Your task to perform on an android device: Search for "The Dispatcher" by John Scalzi on Goodreads Image 0: 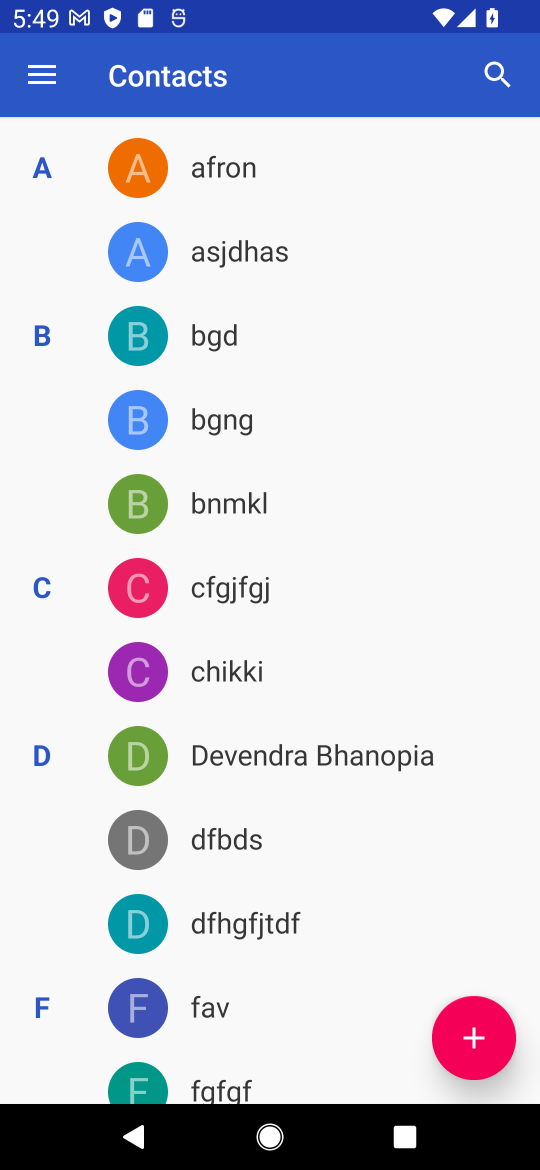
Step 0: press home button
Your task to perform on an android device: Search for "The Dispatcher" by John Scalzi on Goodreads Image 1: 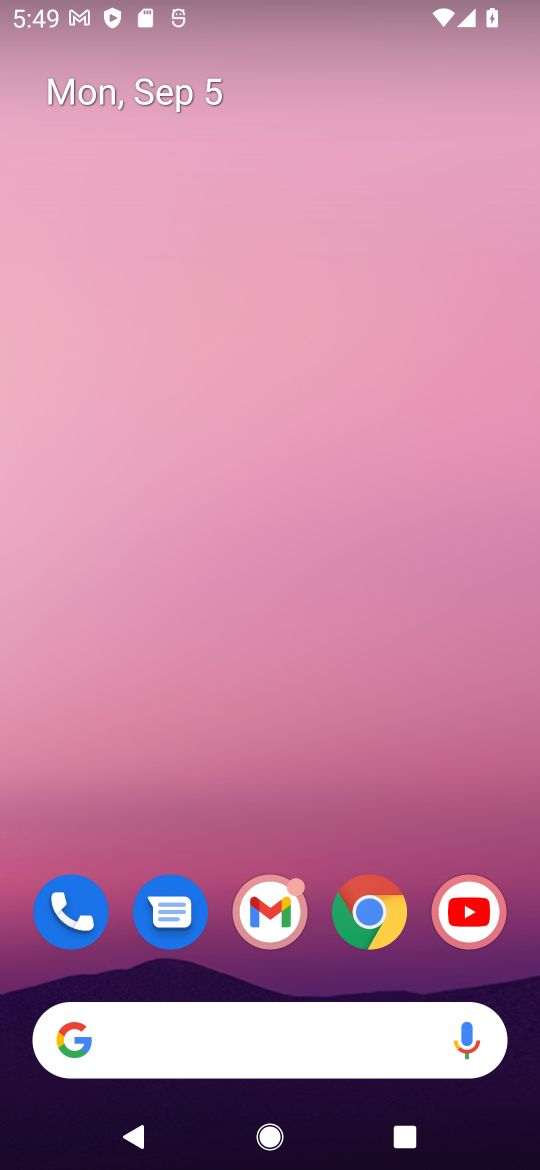
Step 1: click (364, 938)
Your task to perform on an android device: Search for "The Dispatcher" by John Scalzi on Goodreads Image 2: 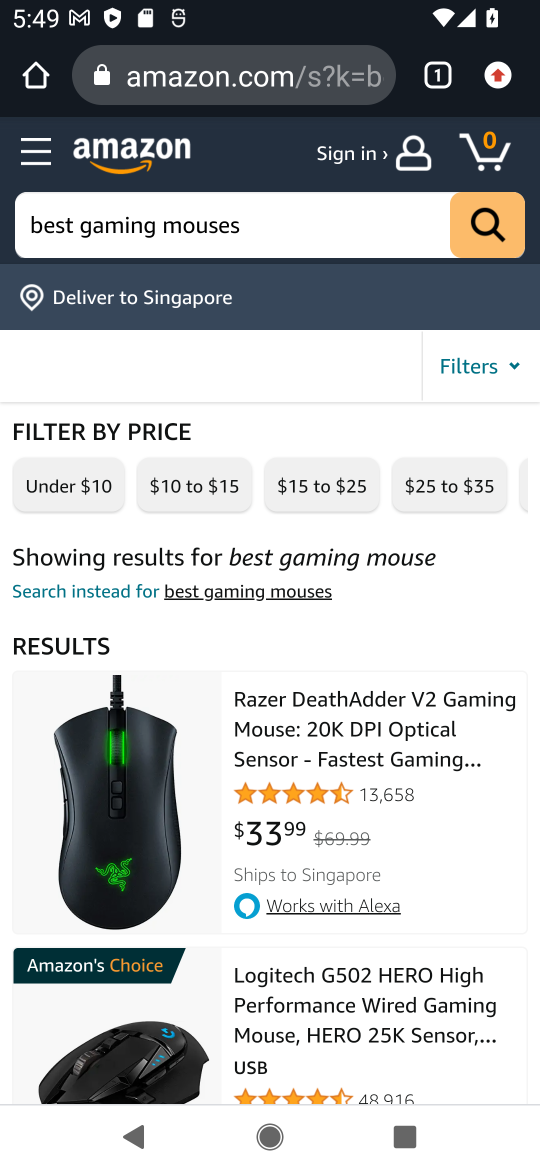
Step 2: click (260, 55)
Your task to perform on an android device: Search for "The Dispatcher" by John Scalzi on Goodreads Image 3: 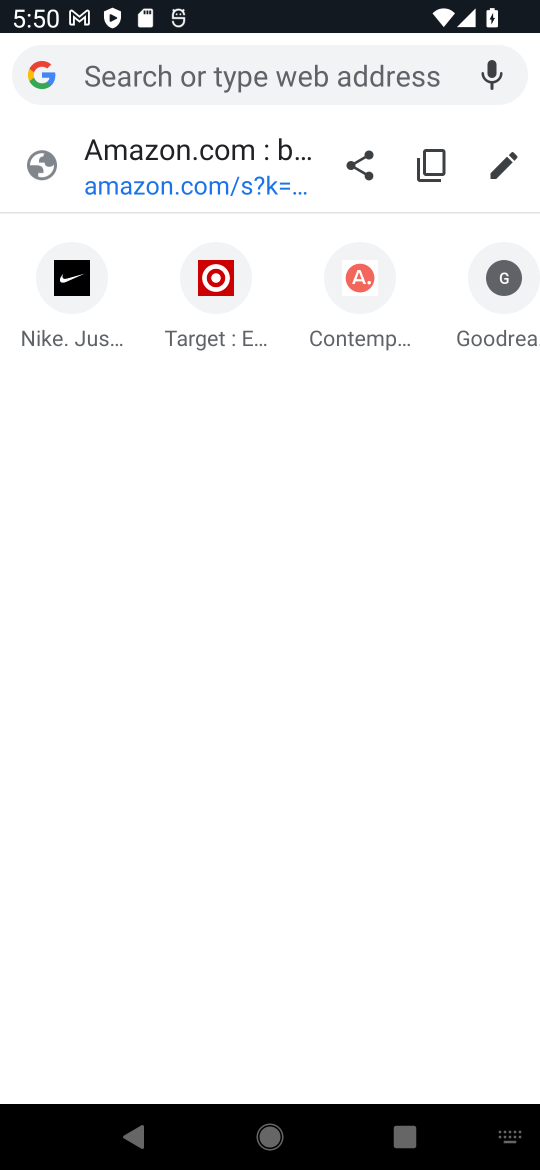
Step 3: type "the dispatcher by john scalzi"
Your task to perform on an android device: Search for "The Dispatcher" by John Scalzi on Goodreads Image 4: 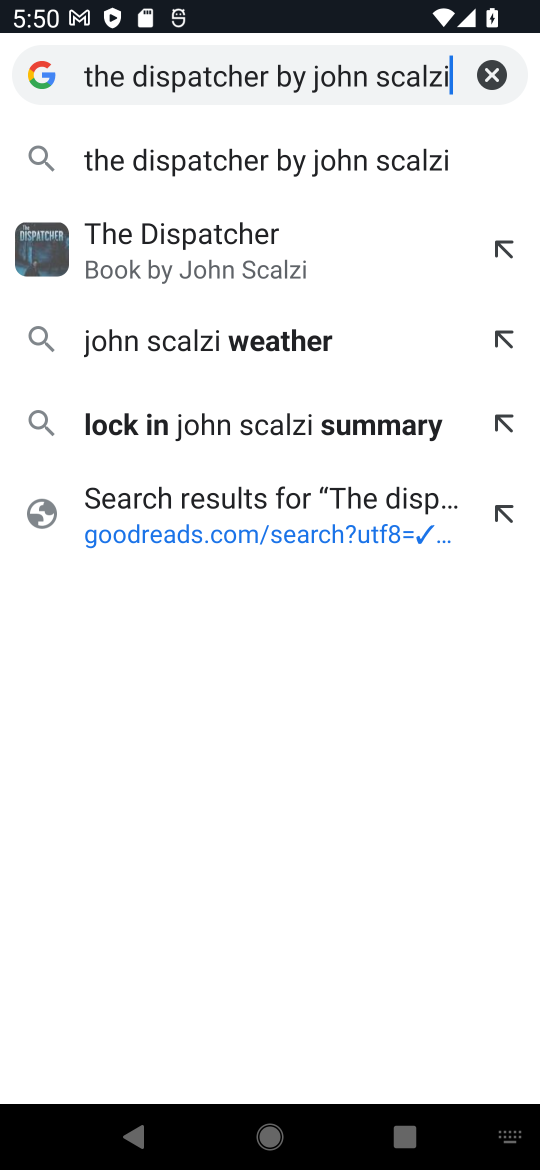
Step 4: press enter
Your task to perform on an android device: Search for "The Dispatcher" by John Scalzi on Goodreads Image 5: 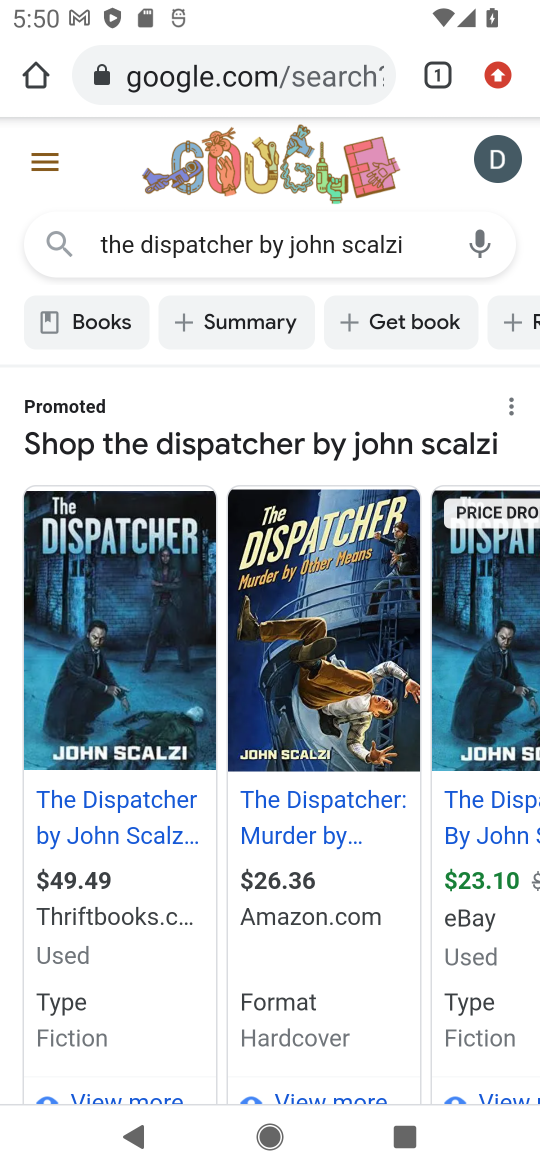
Step 5: click (238, 257)
Your task to perform on an android device: Search for "The Dispatcher" by John Scalzi on Goodreads Image 6: 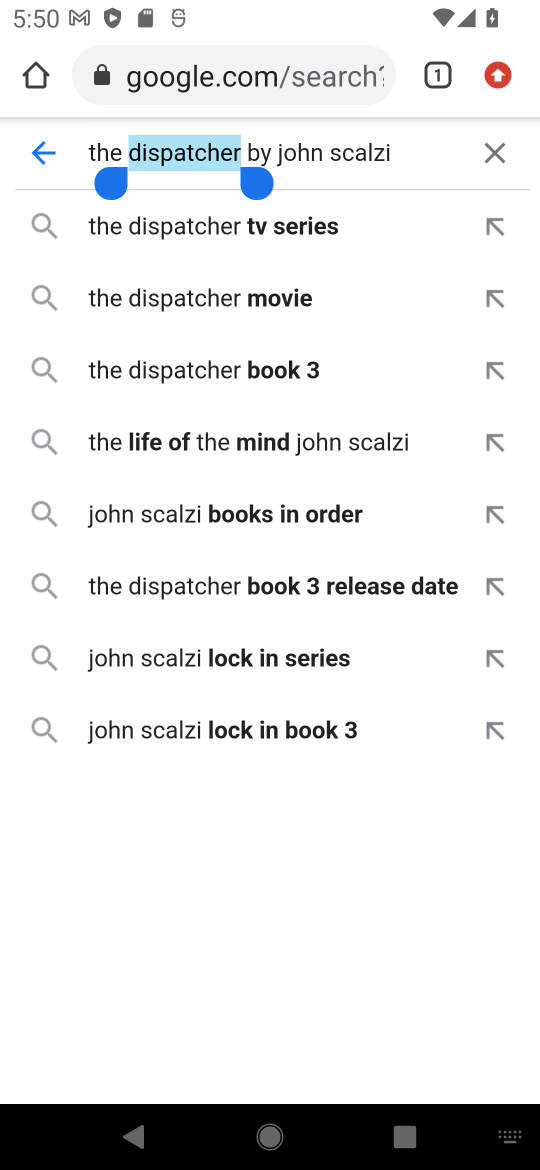
Step 6: click (289, 69)
Your task to perform on an android device: Search for "The Dispatcher" by John Scalzi on Goodreads Image 7: 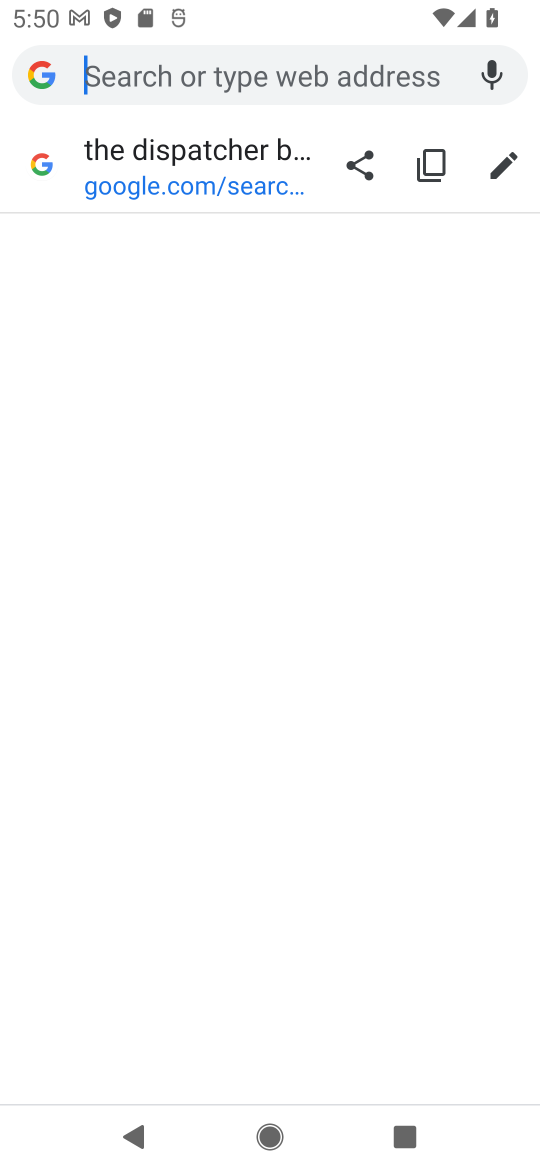
Step 7: type "goodreads"
Your task to perform on an android device: Search for "The Dispatcher" by John Scalzi on Goodreads Image 8: 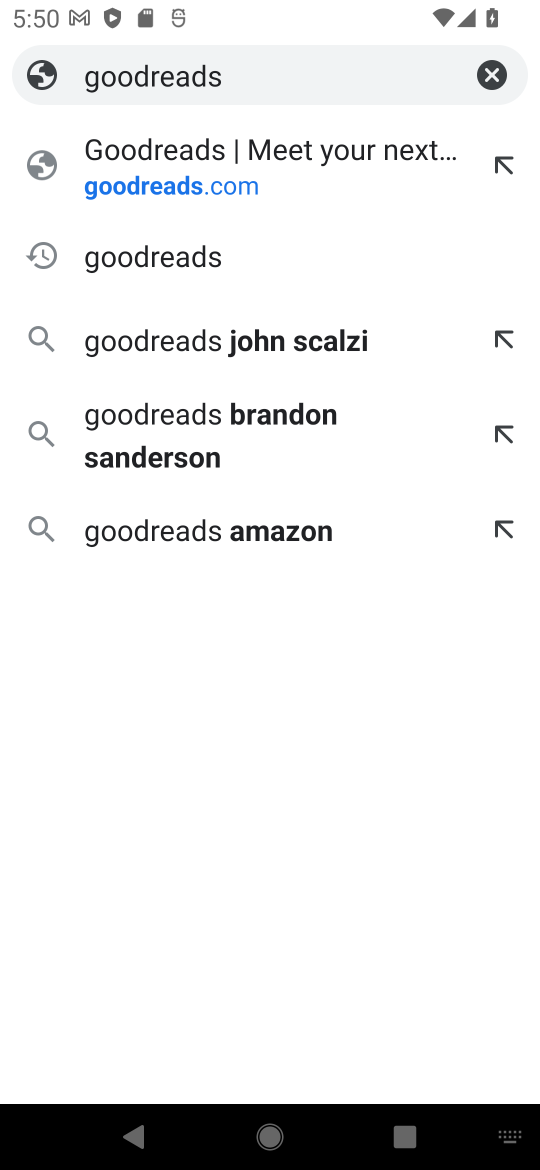
Step 8: press enter
Your task to perform on an android device: Search for "The Dispatcher" by John Scalzi on Goodreads Image 9: 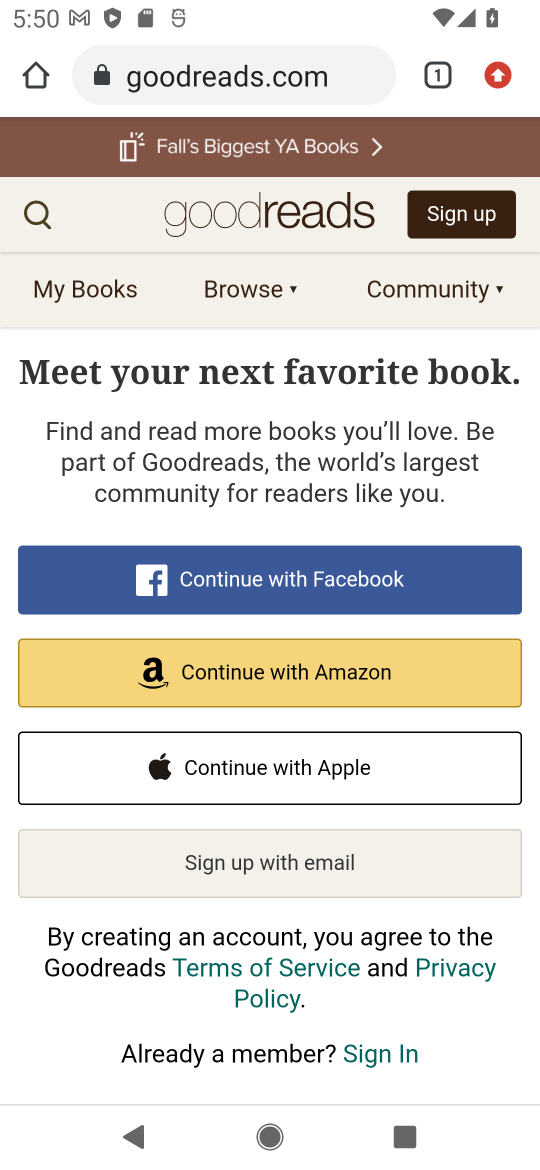
Step 9: drag from (147, 937) to (172, 600)
Your task to perform on an android device: Search for "The Dispatcher" by John Scalzi on Goodreads Image 10: 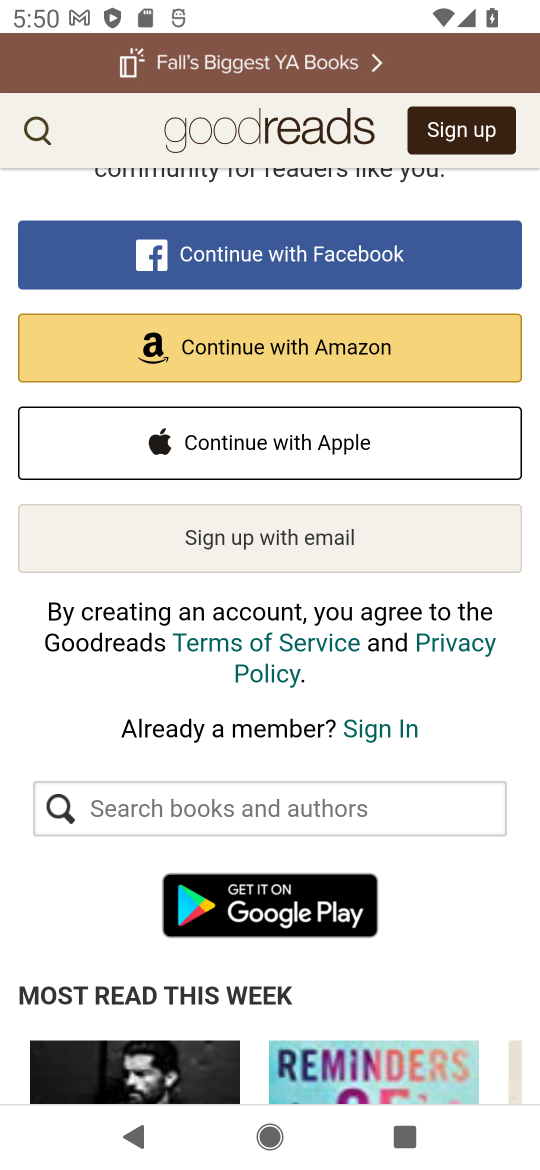
Step 10: click (264, 806)
Your task to perform on an android device: Search for "The Dispatcher" by John Scalzi on Goodreads Image 11: 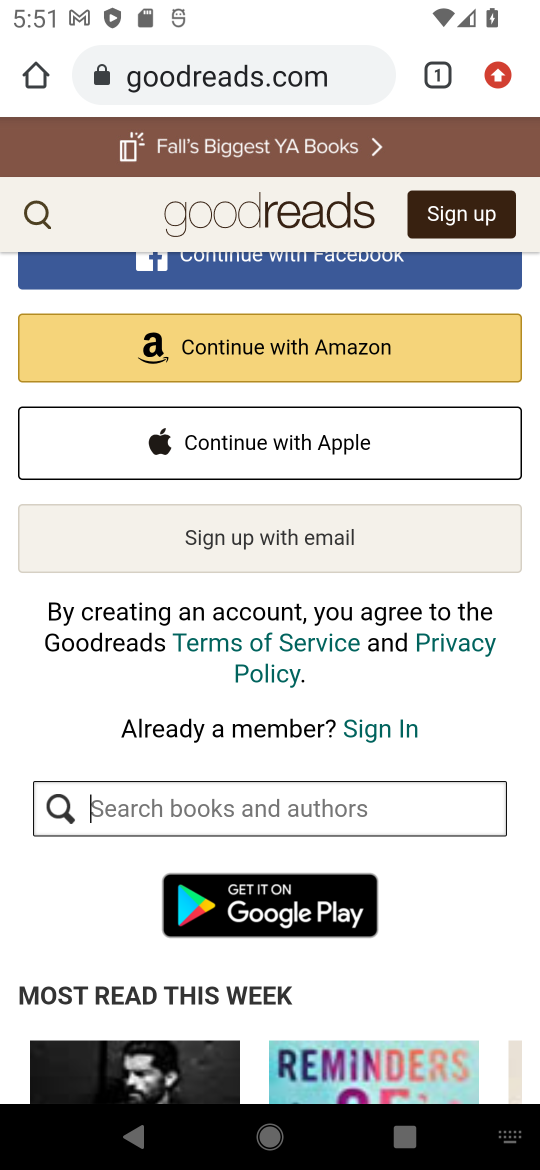
Step 11: type "the dispatcher by john scalzi"
Your task to perform on an android device: Search for "The Dispatcher" by John Scalzi on Goodreads Image 12: 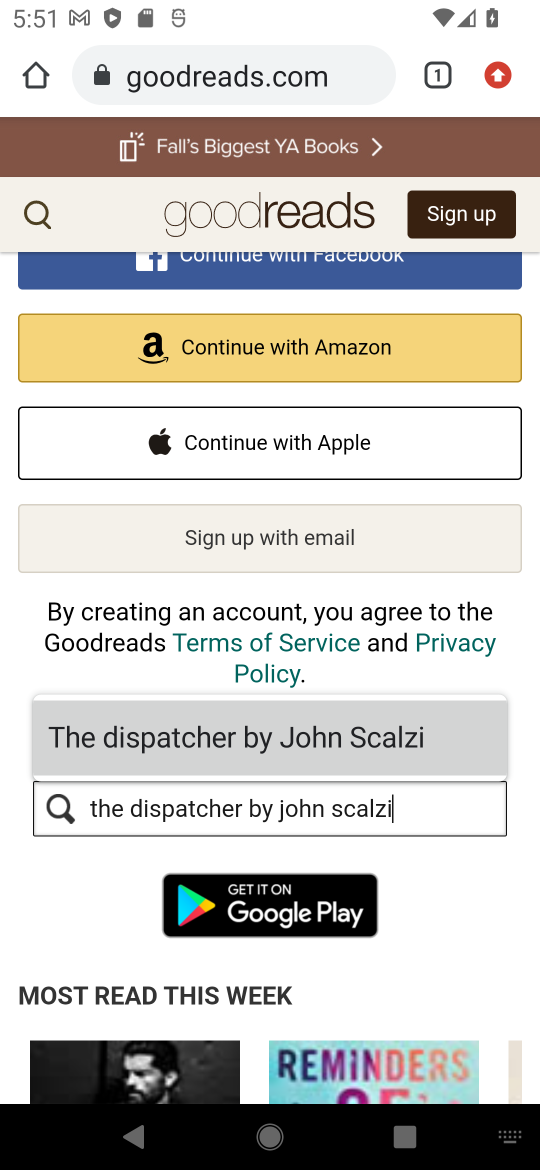
Step 12: type ""
Your task to perform on an android device: Search for "The Dispatcher" by John Scalzi on Goodreads Image 13: 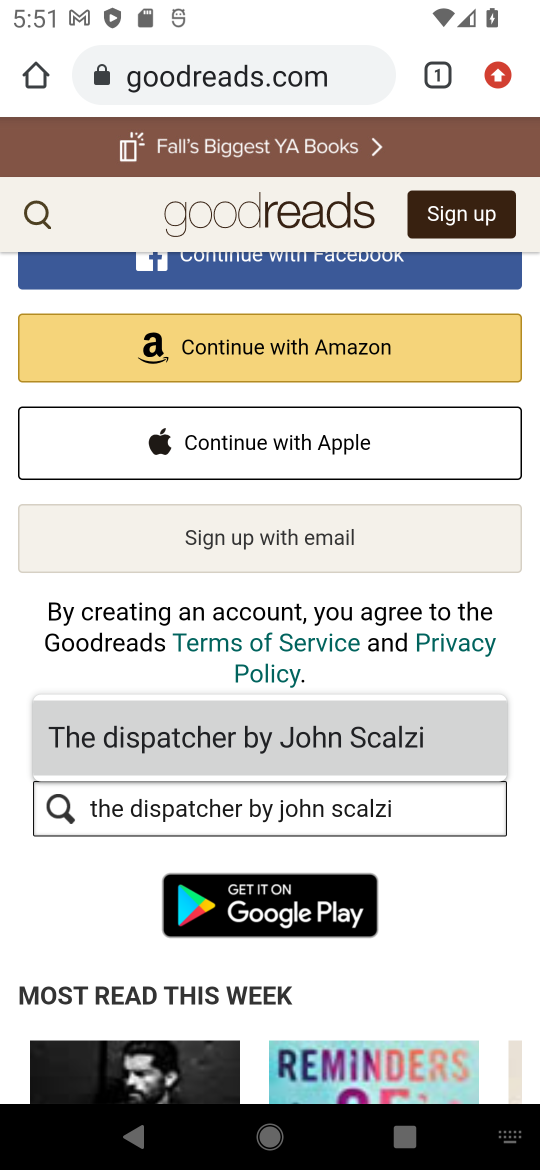
Step 13: press enter
Your task to perform on an android device: Search for "The Dispatcher" by John Scalzi on Goodreads Image 14: 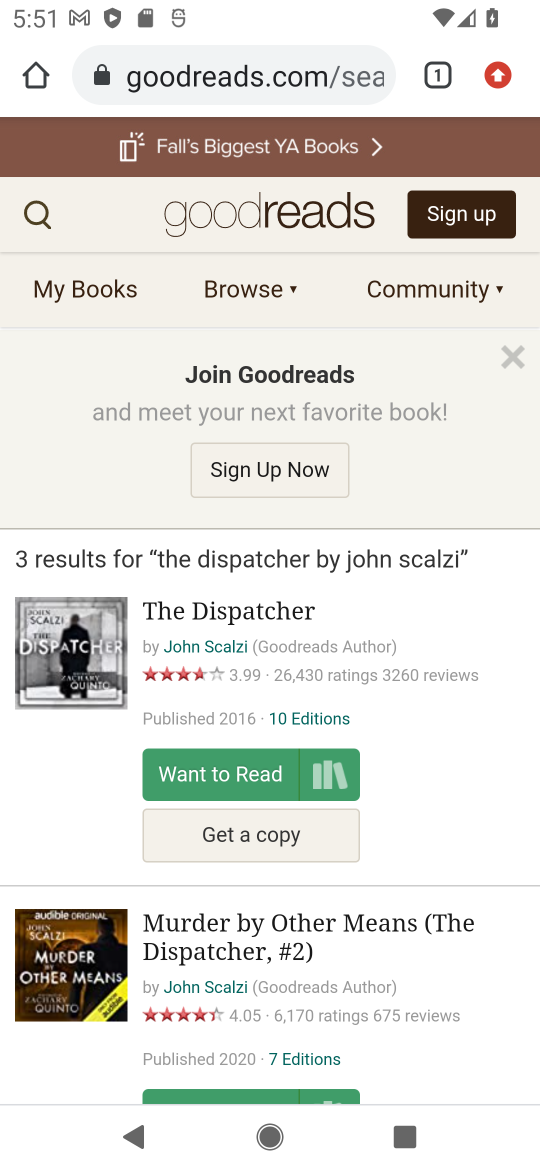
Step 14: task complete